Your task to perform on an android device: What's the weather? Image 0: 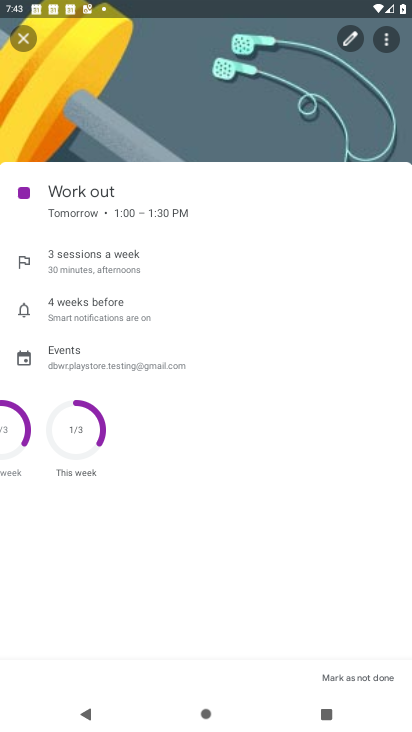
Step 0: press home button
Your task to perform on an android device: What's the weather? Image 1: 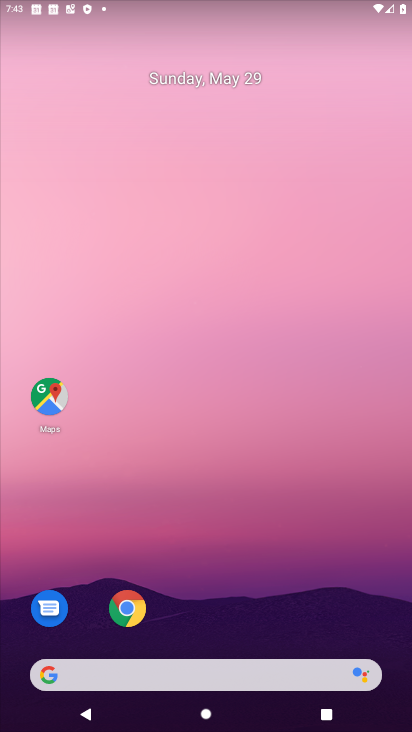
Step 1: click (200, 668)
Your task to perform on an android device: What's the weather? Image 2: 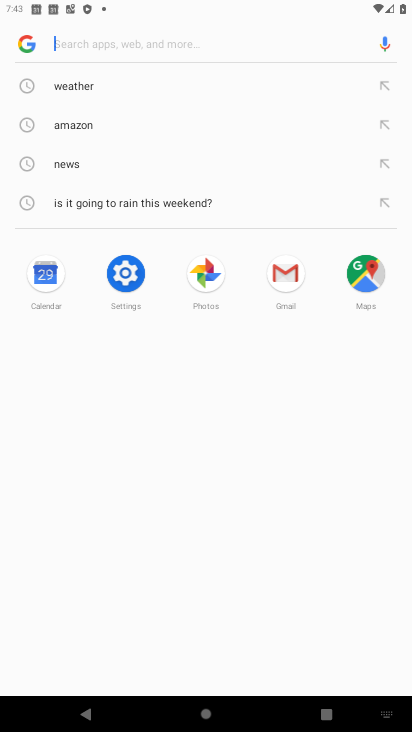
Step 2: click (67, 84)
Your task to perform on an android device: What's the weather? Image 3: 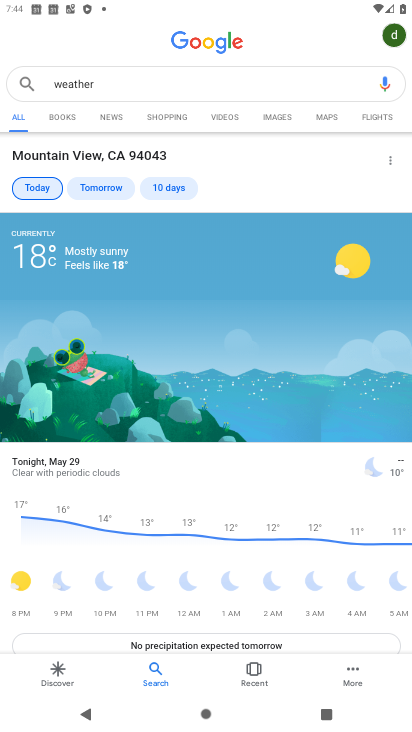
Step 3: task complete